Your task to perform on an android device: Turn on the flashlight Image 0: 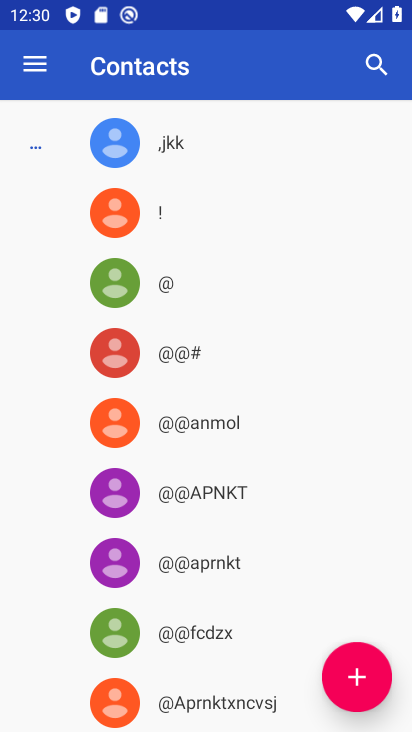
Step 0: press home button
Your task to perform on an android device: Turn on the flashlight Image 1: 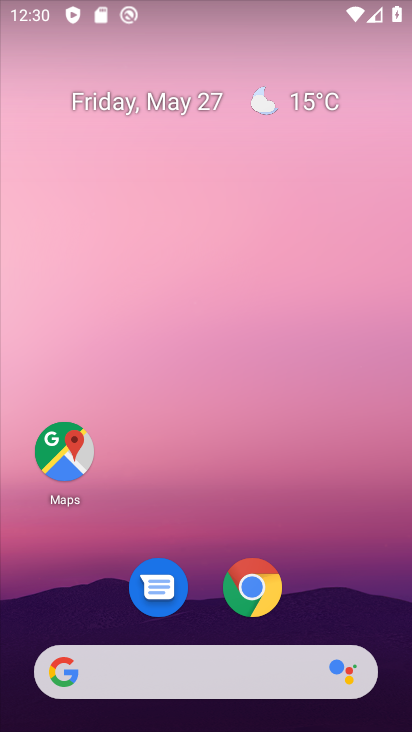
Step 1: drag from (325, 573) to (336, 28)
Your task to perform on an android device: Turn on the flashlight Image 2: 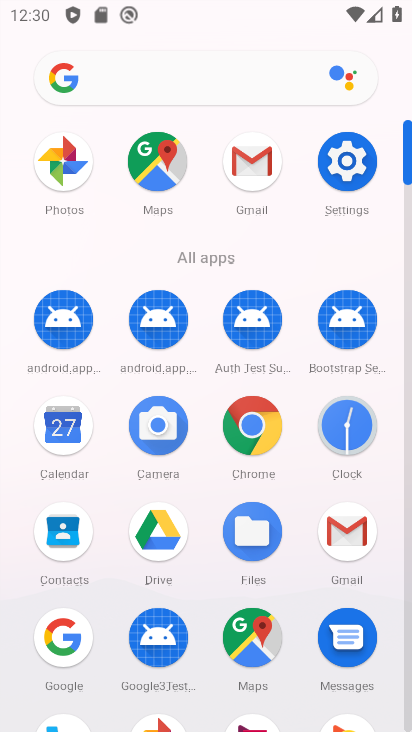
Step 2: click (342, 159)
Your task to perform on an android device: Turn on the flashlight Image 3: 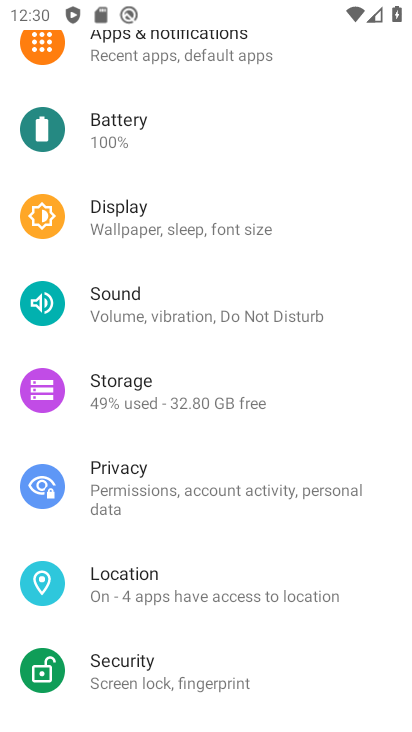
Step 3: task complete